Your task to perform on an android device: Open calendar and show me the second week of next month Image 0: 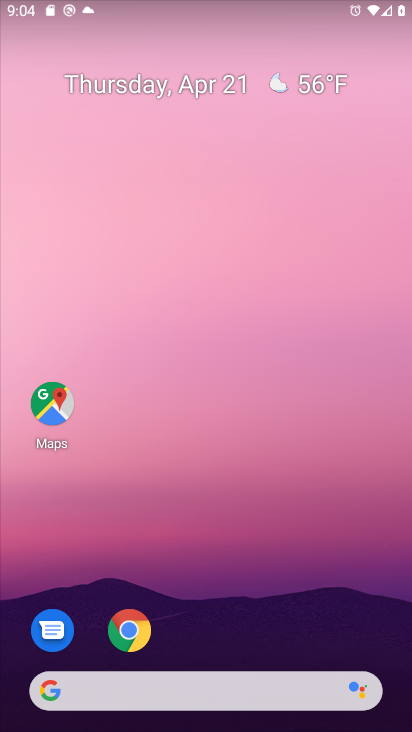
Step 0: drag from (220, 566) to (373, 76)
Your task to perform on an android device: Open calendar and show me the second week of next month Image 1: 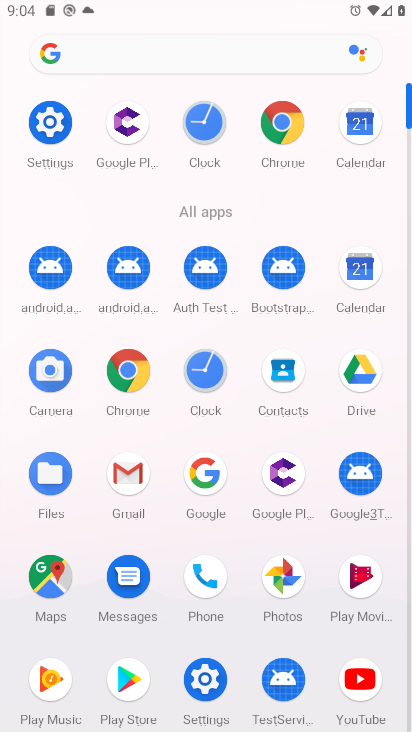
Step 1: click (358, 268)
Your task to perform on an android device: Open calendar and show me the second week of next month Image 2: 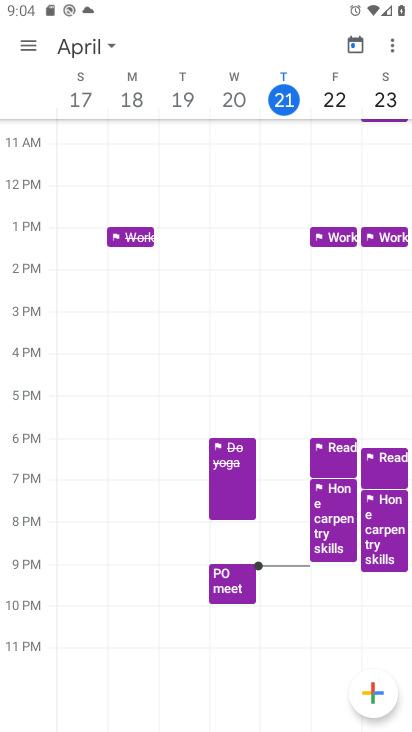
Step 2: task complete